Your task to perform on an android device: What's the news in Brunei? Image 0: 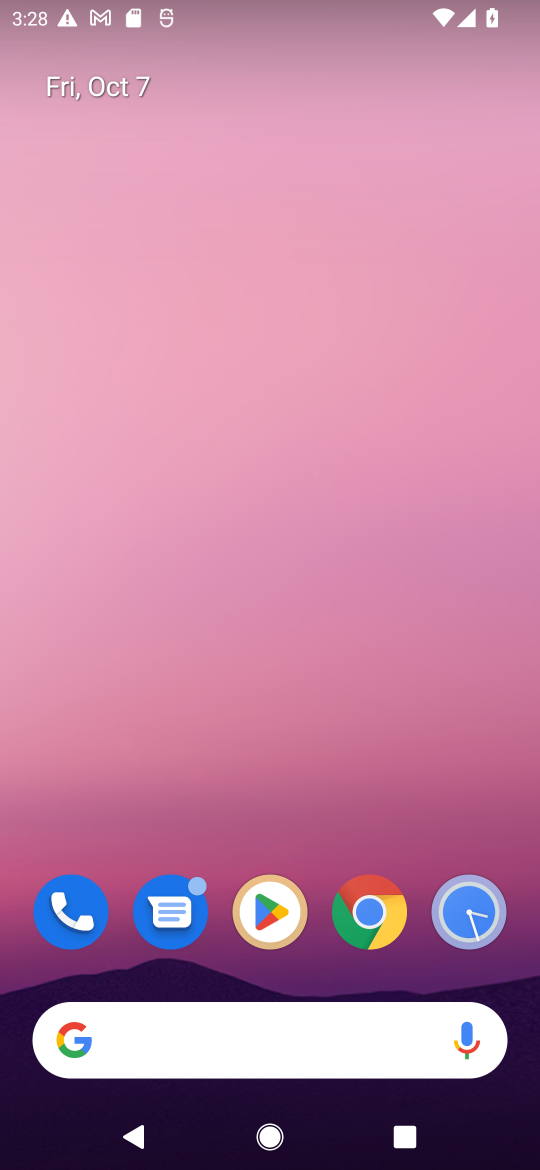
Step 0: drag from (282, 1033) to (286, 220)
Your task to perform on an android device: What's the news in Brunei? Image 1: 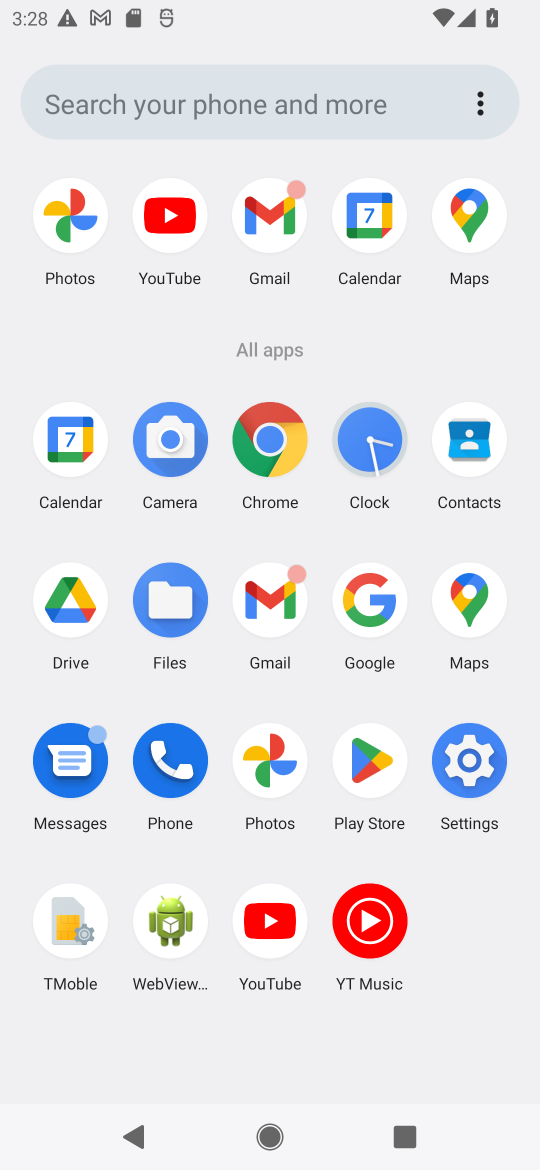
Step 1: click (367, 595)
Your task to perform on an android device: What's the news in Brunei? Image 2: 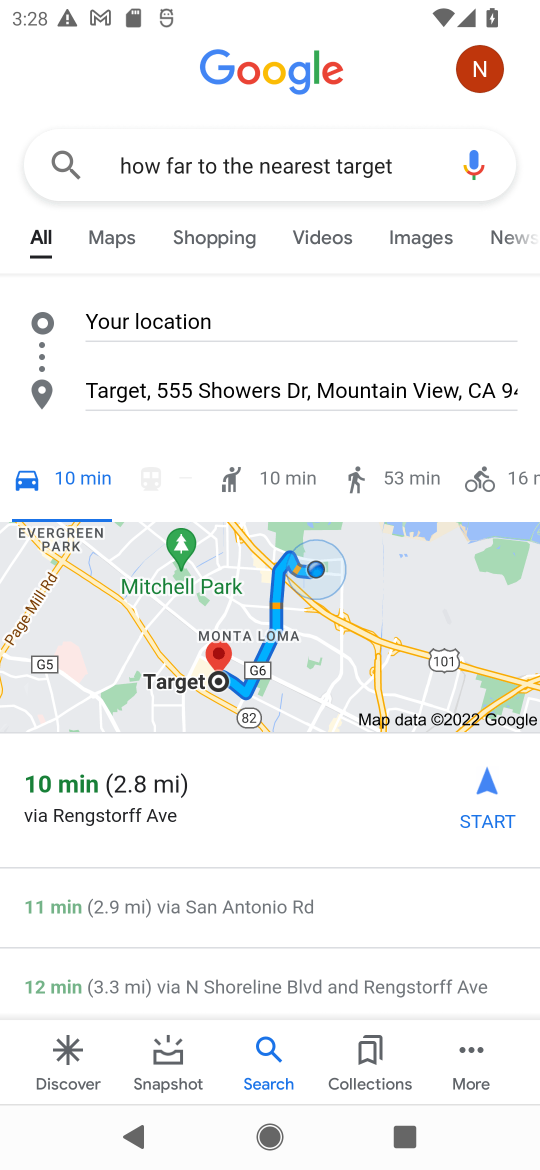
Step 2: click (355, 171)
Your task to perform on an android device: What's the news in Brunei? Image 3: 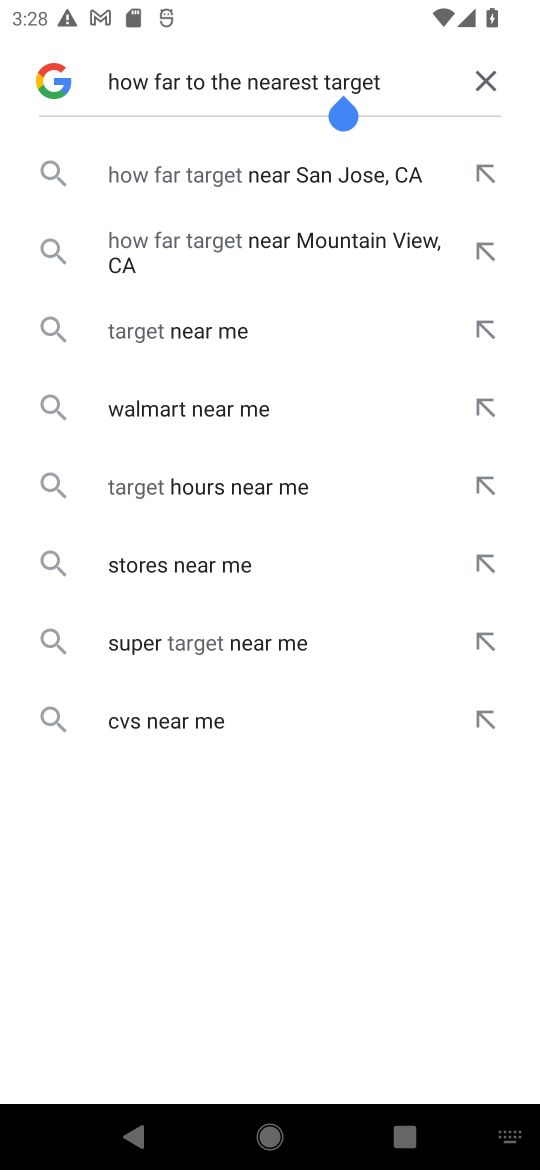
Step 3: click (500, 81)
Your task to perform on an android device: What's the news in Brunei? Image 4: 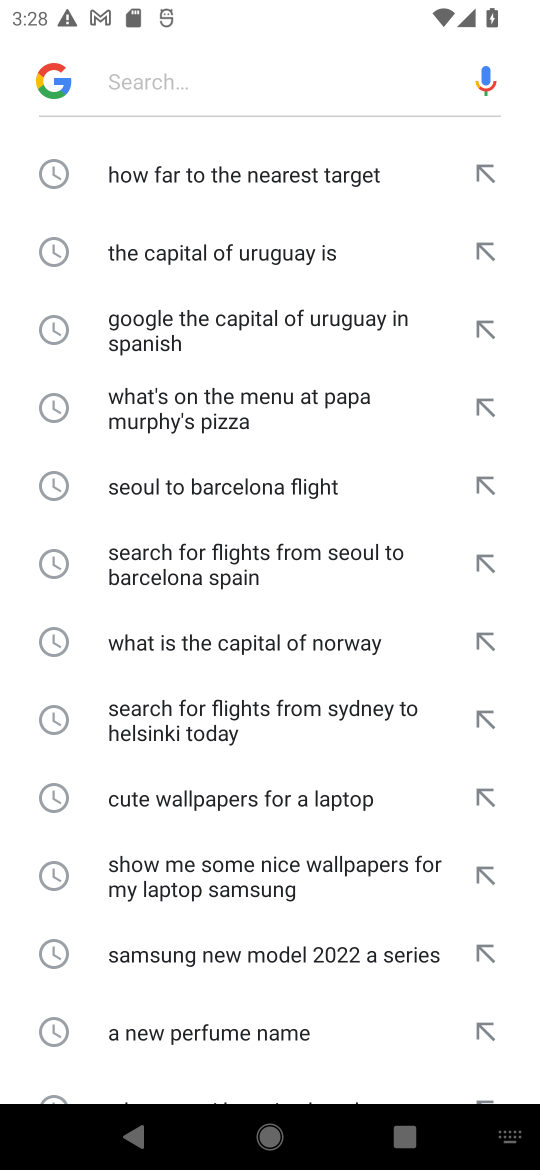
Step 4: click (181, 78)
Your task to perform on an android device: What's the news in Brunei? Image 5: 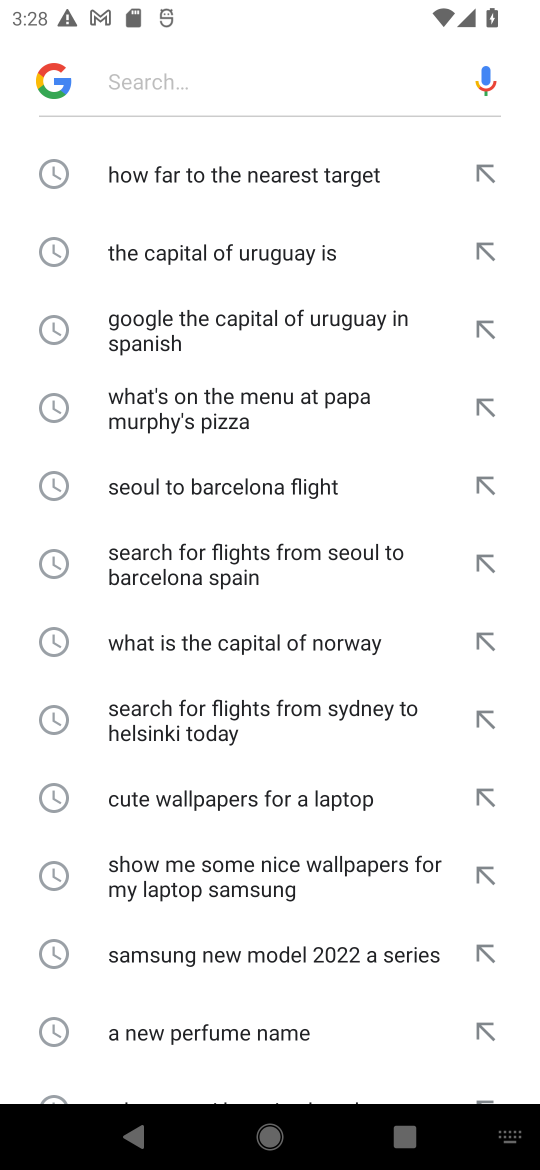
Step 5: type "What's the news in Brunei? "
Your task to perform on an android device: What's the news in Brunei? Image 6: 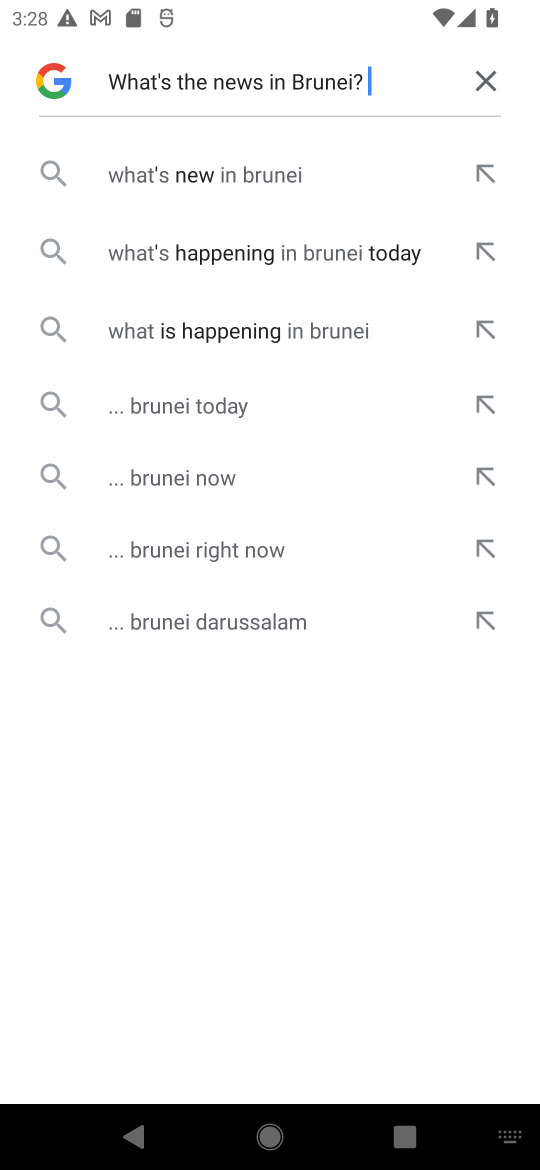
Step 6: click (248, 161)
Your task to perform on an android device: What's the news in Brunei? Image 7: 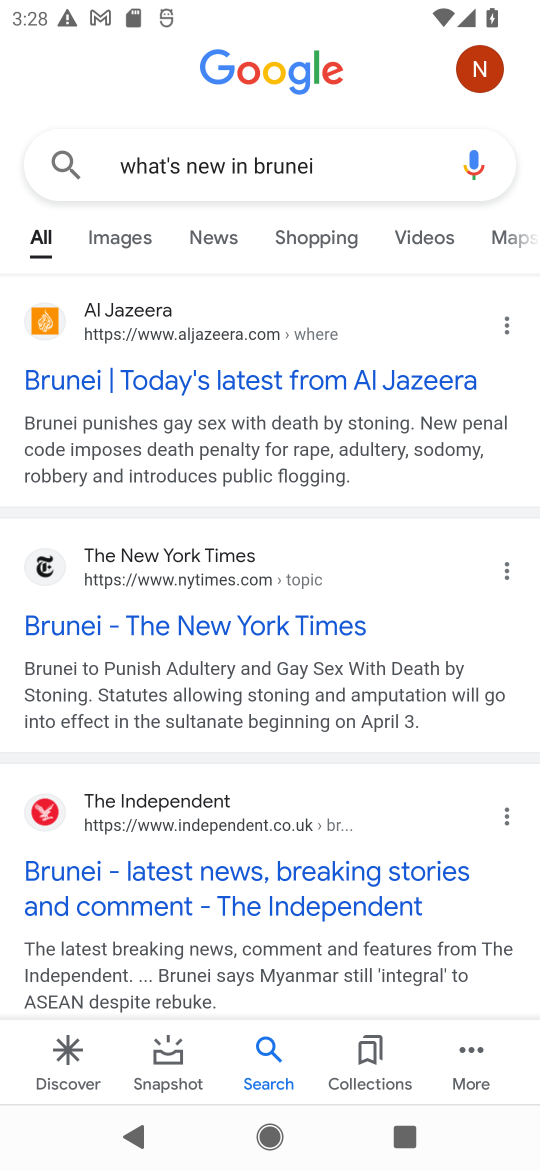
Step 7: click (334, 385)
Your task to perform on an android device: What's the news in Brunei? Image 8: 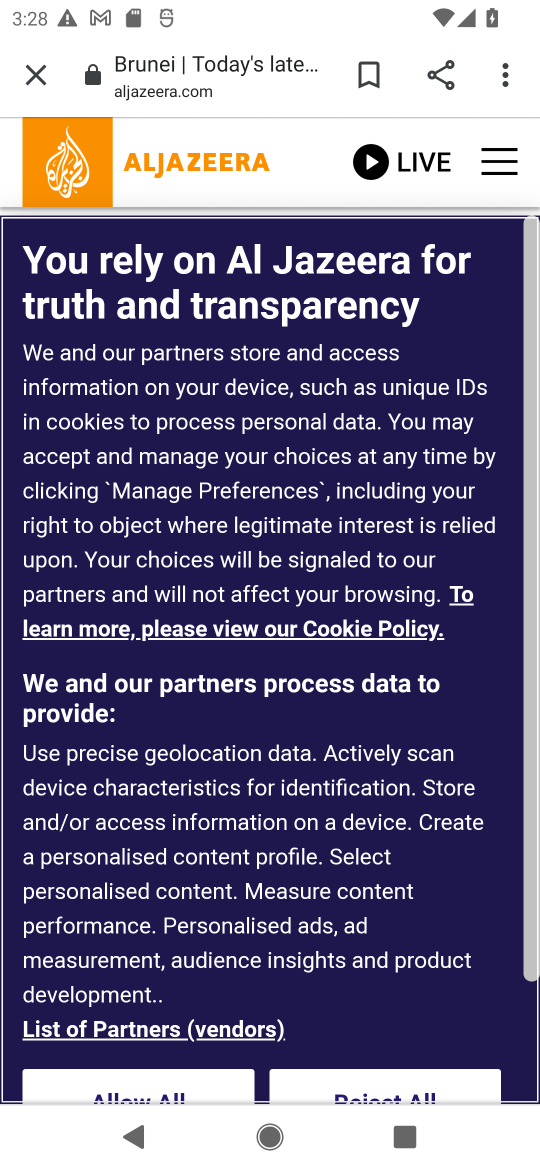
Step 8: task complete